Your task to perform on an android device: See recent photos Image 0: 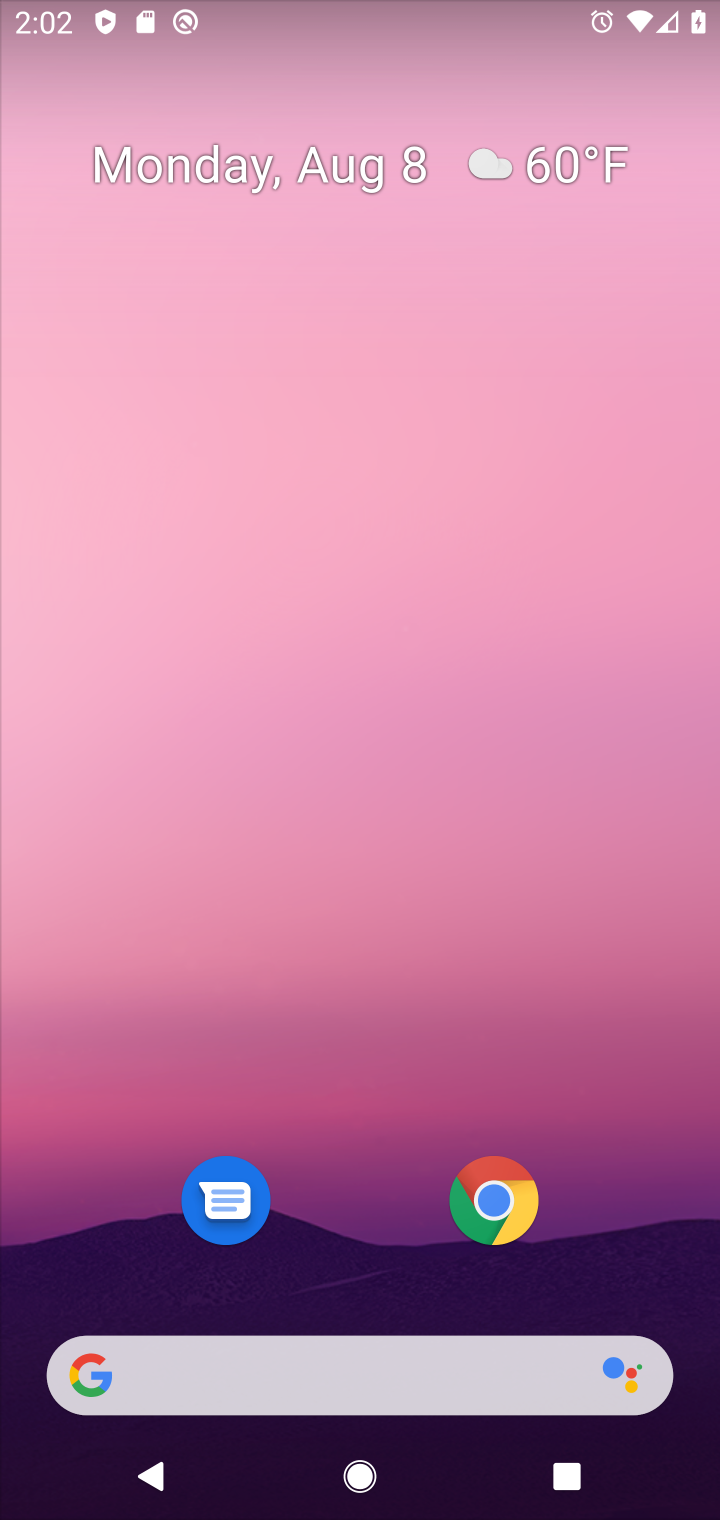
Step 0: press home button
Your task to perform on an android device: See recent photos Image 1: 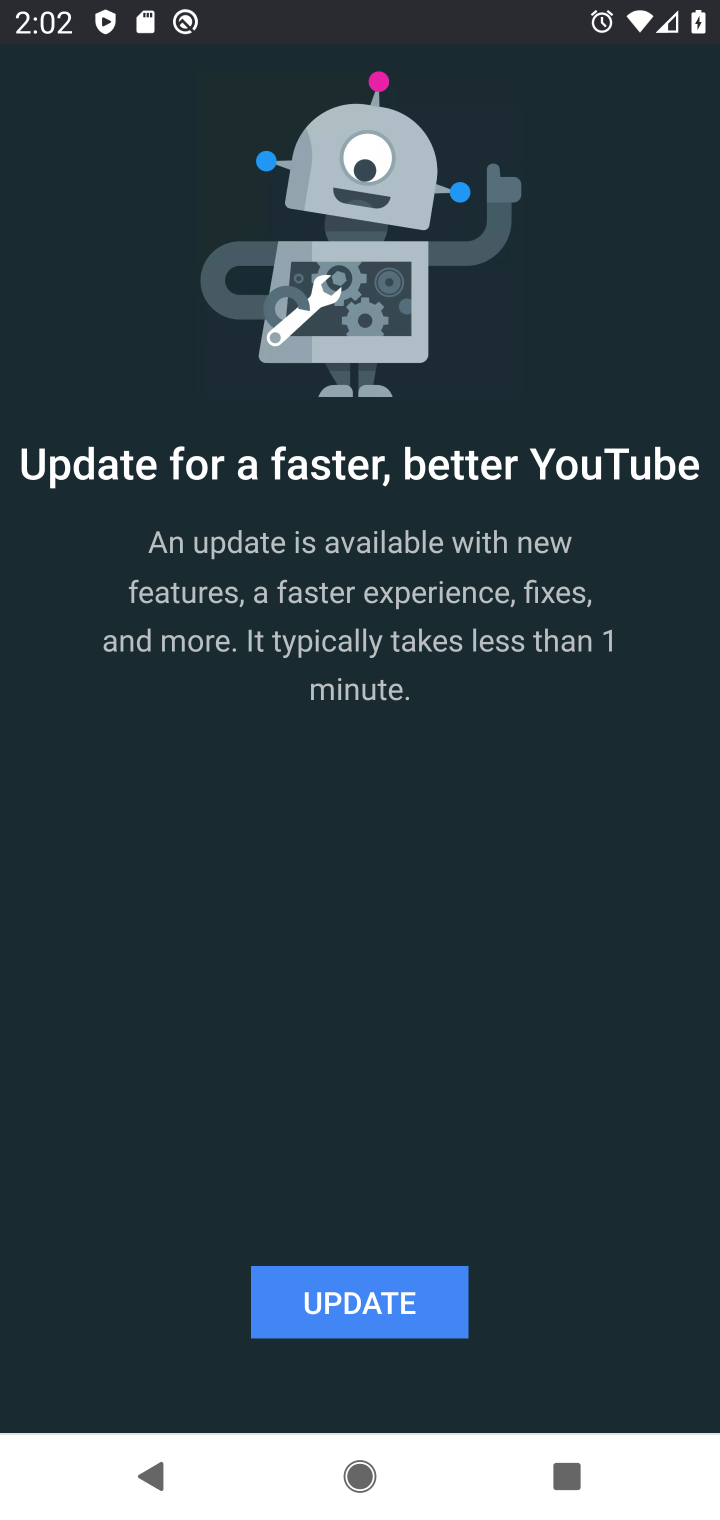
Step 1: press home button
Your task to perform on an android device: See recent photos Image 2: 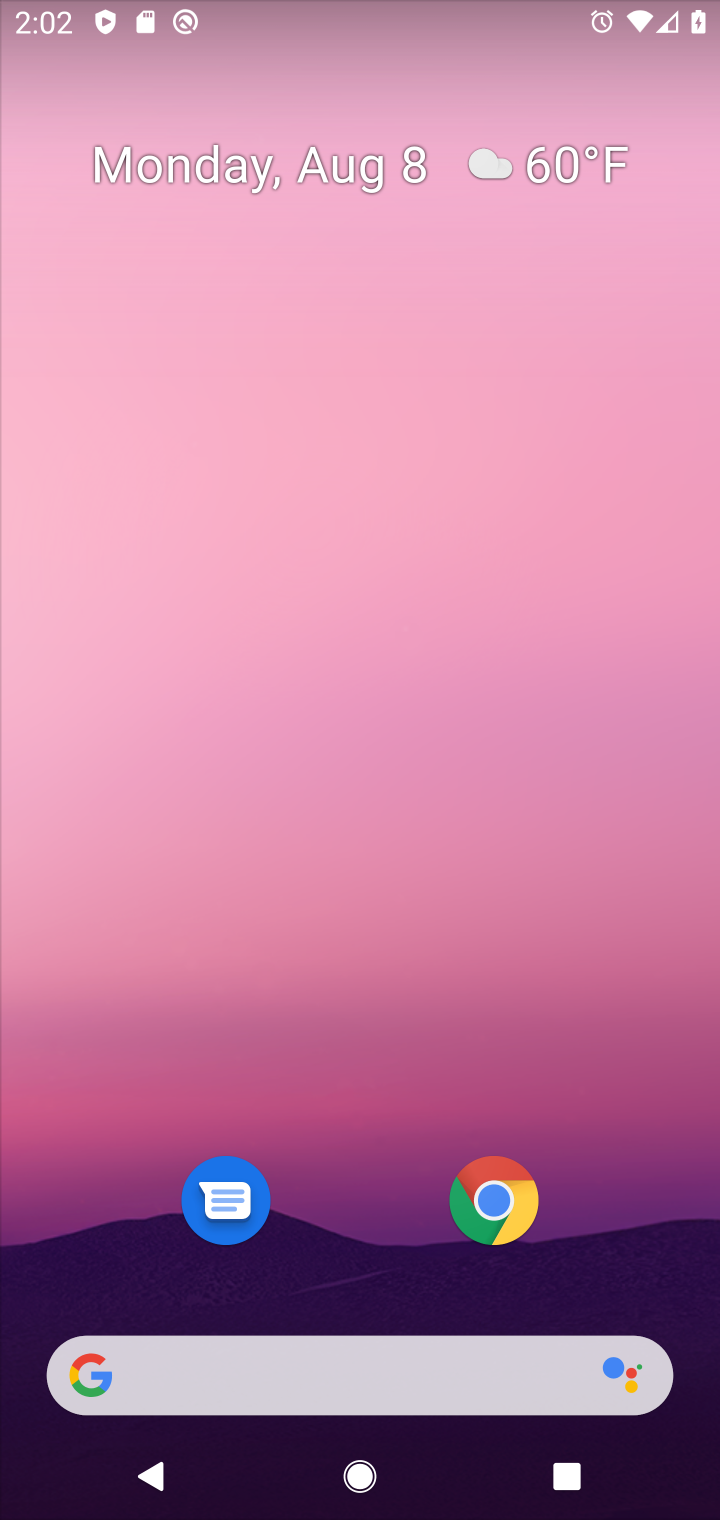
Step 2: press home button
Your task to perform on an android device: See recent photos Image 3: 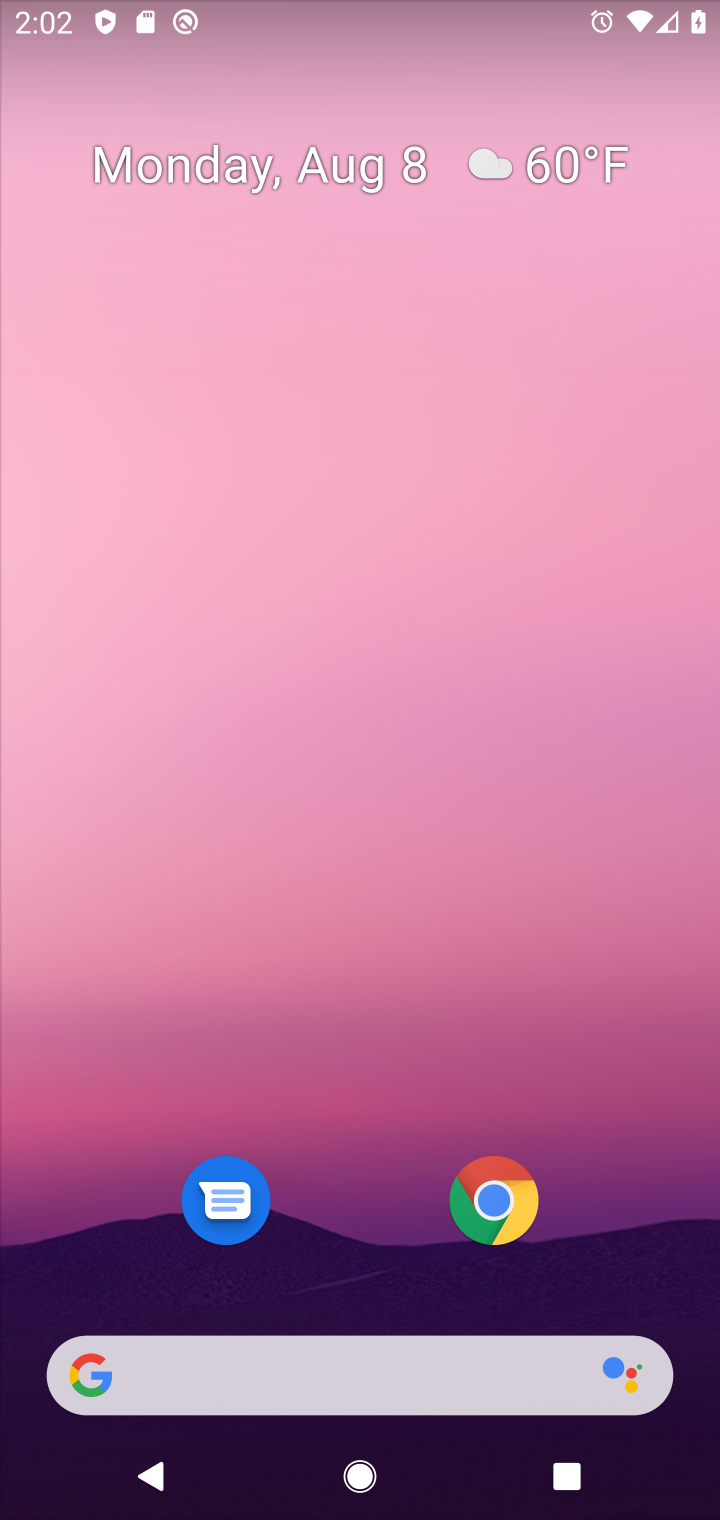
Step 3: drag from (379, 1082) to (435, 173)
Your task to perform on an android device: See recent photos Image 4: 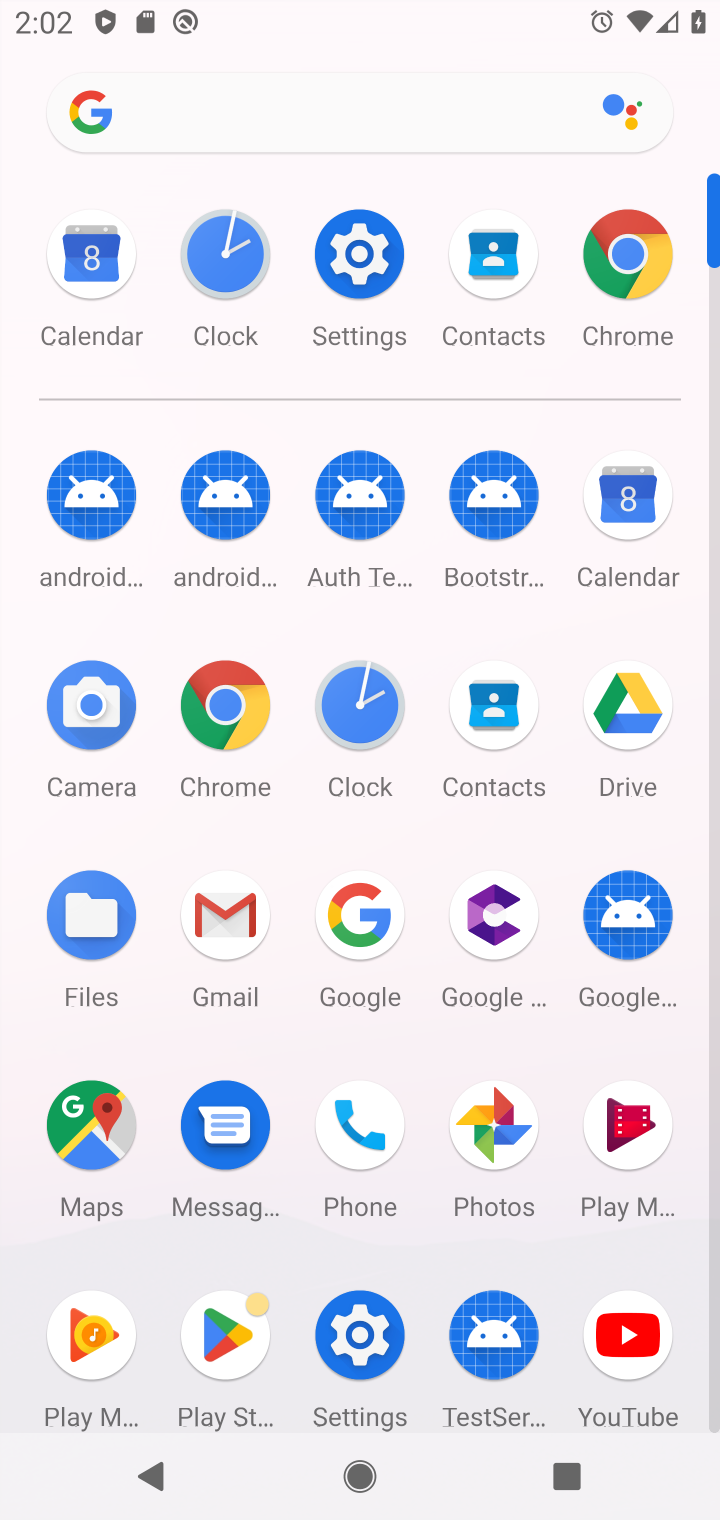
Step 4: click (491, 1115)
Your task to perform on an android device: See recent photos Image 5: 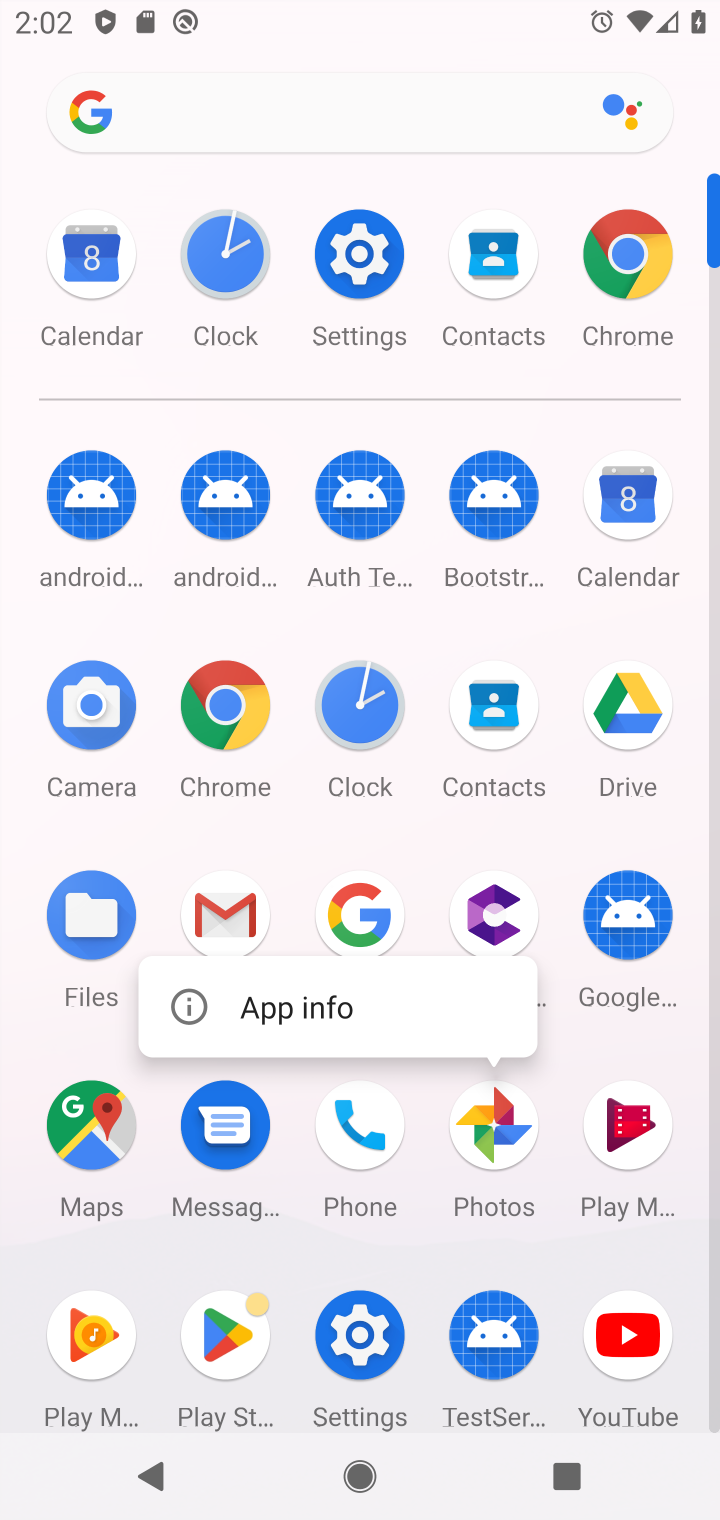
Step 5: click (511, 1118)
Your task to perform on an android device: See recent photos Image 6: 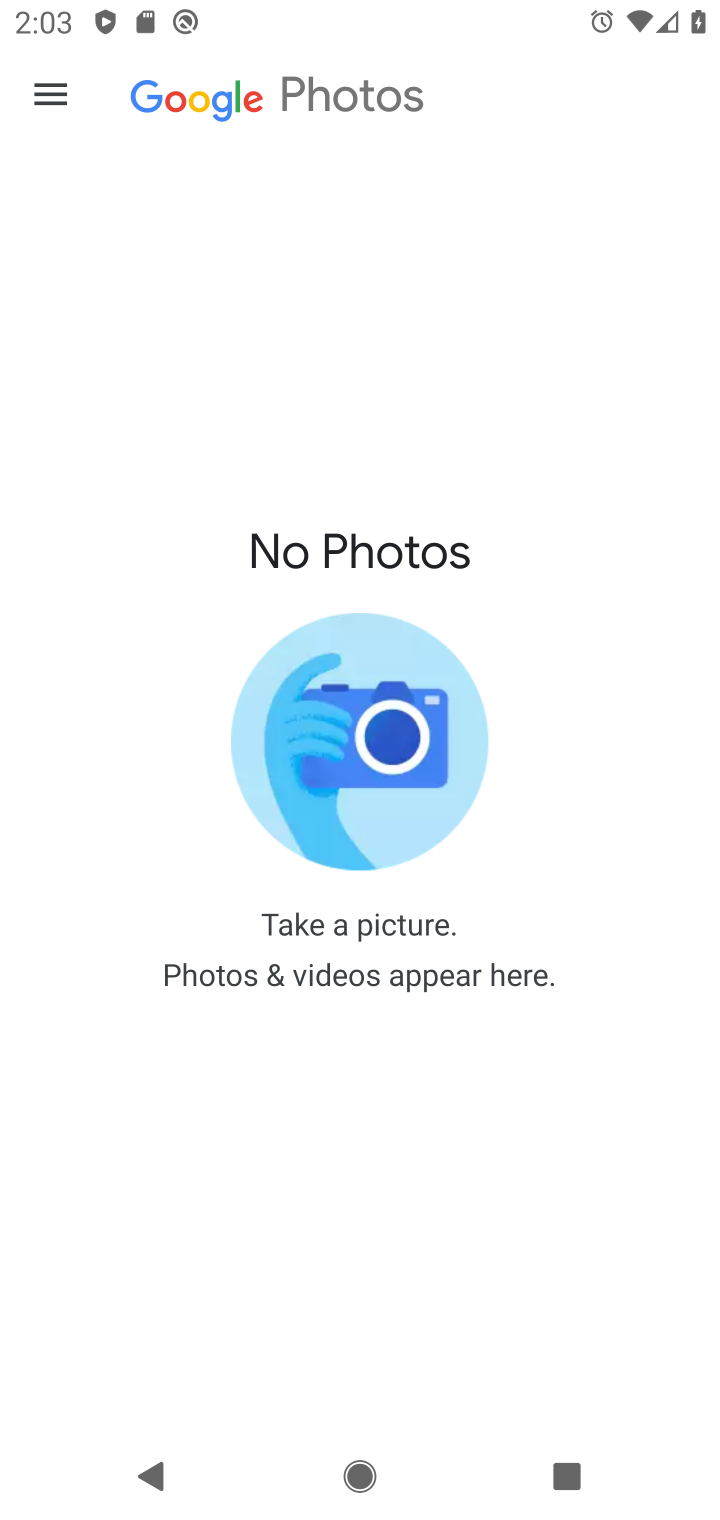
Step 6: task complete